Your task to perform on an android device: check battery use Image 0: 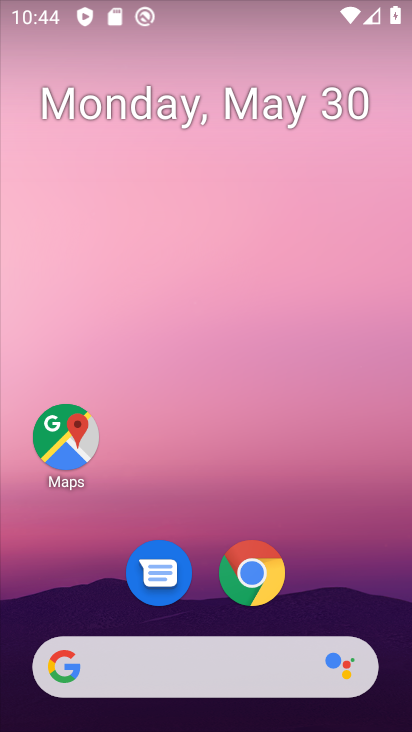
Step 0: drag from (50, 632) to (210, 233)
Your task to perform on an android device: check battery use Image 1: 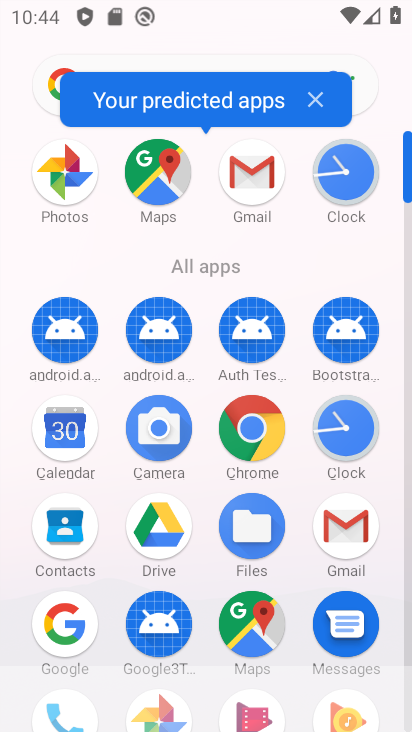
Step 1: drag from (202, 573) to (280, 308)
Your task to perform on an android device: check battery use Image 2: 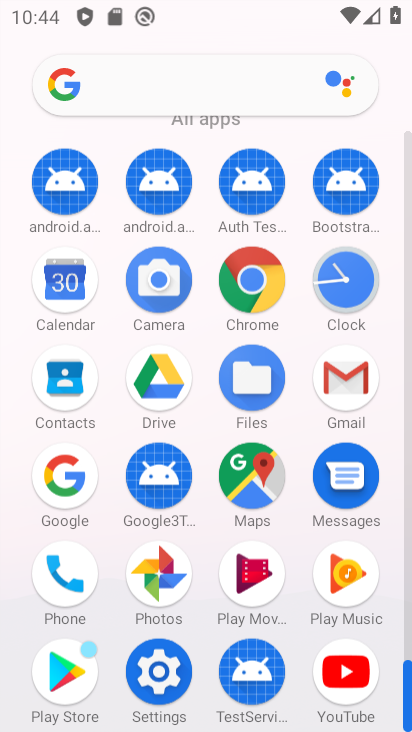
Step 2: click (155, 672)
Your task to perform on an android device: check battery use Image 3: 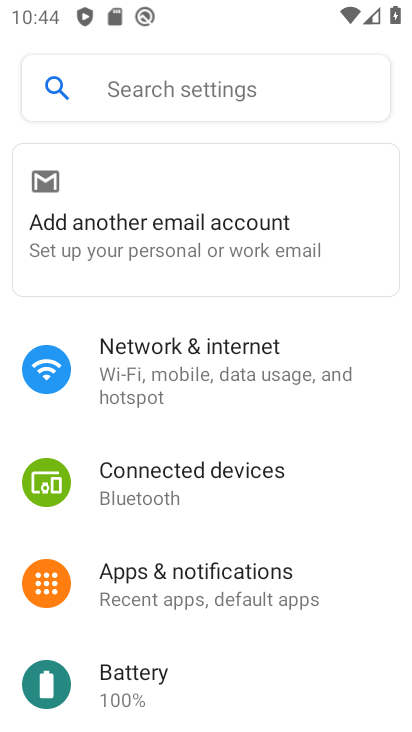
Step 3: drag from (201, 620) to (290, 382)
Your task to perform on an android device: check battery use Image 4: 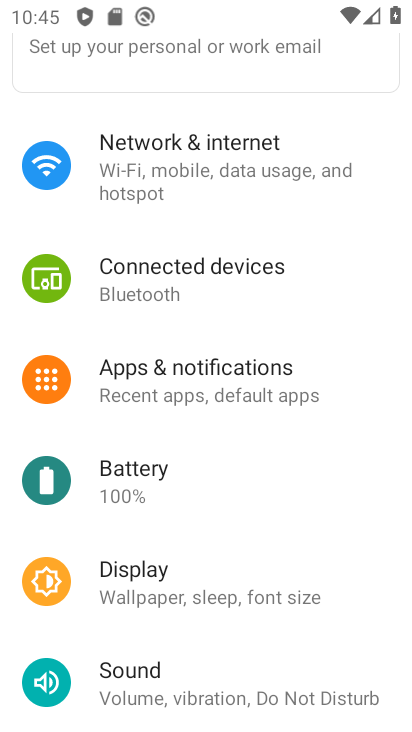
Step 4: drag from (165, 673) to (242, 441)
Your task to perform on an android device: check battery use Image 5: 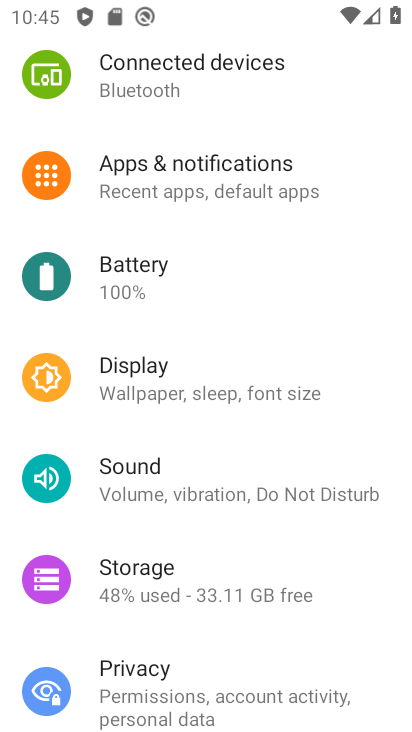
Step 5: click (201, 288)
Your task to perform on an android device: check battery use Image 6: 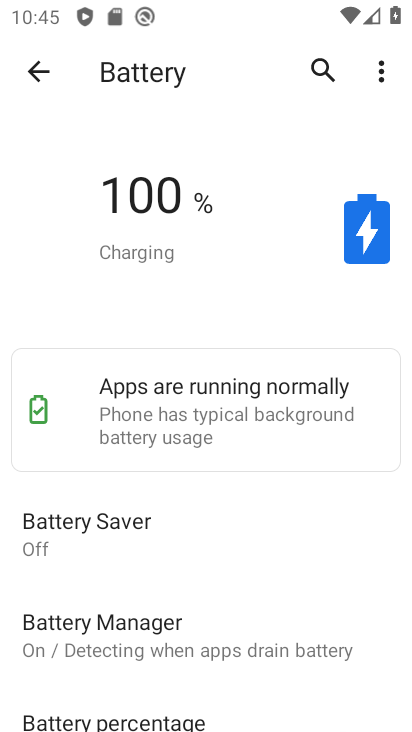
Step 6: click (380, 72)
Your task to perform on an android device: check battery use Image 7: 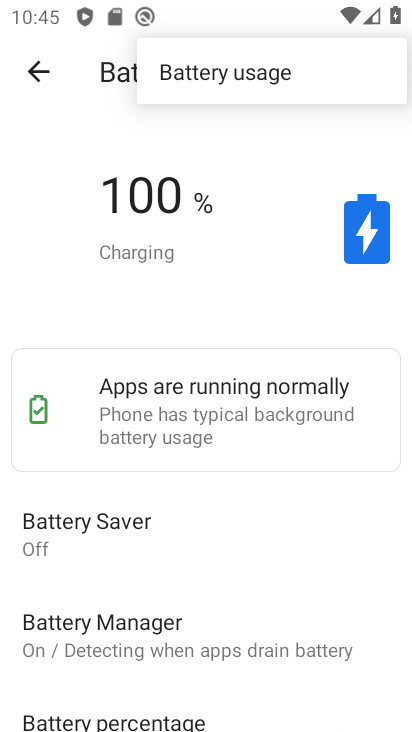
Step 7: click (370, 80)
Your task to perform on an android device: check battery use Image 8: 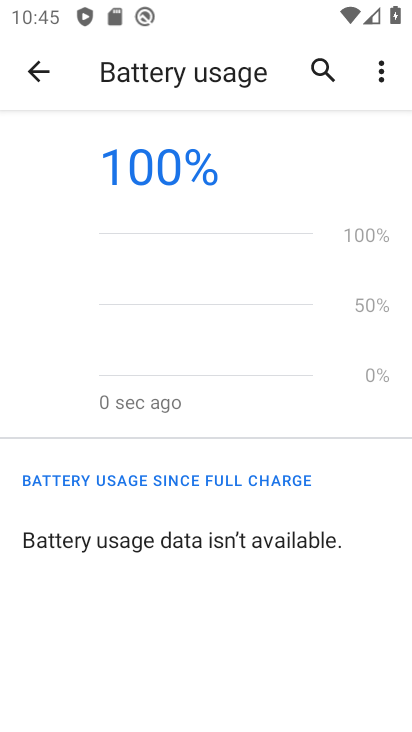
Step 8: task complete